Your task to perform on an android device: Open Google Maps Image 0: 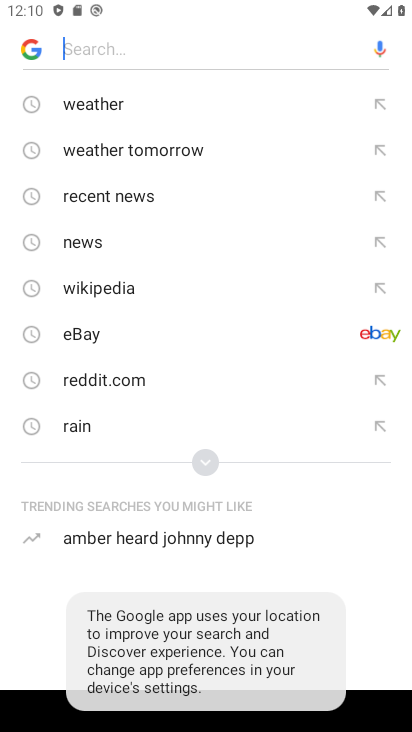
Step 0: press home button
Your task to perform on an android device: Open Google Maps Image 1: 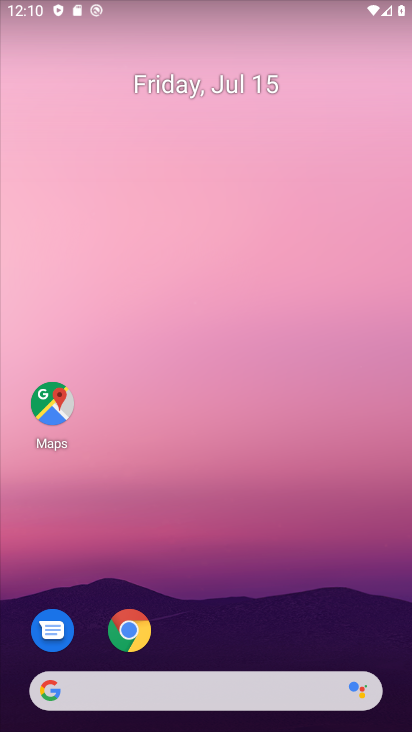
Step 1: click (61, 419)
Your task to perform on an android device: Open Google Maps Image 2: 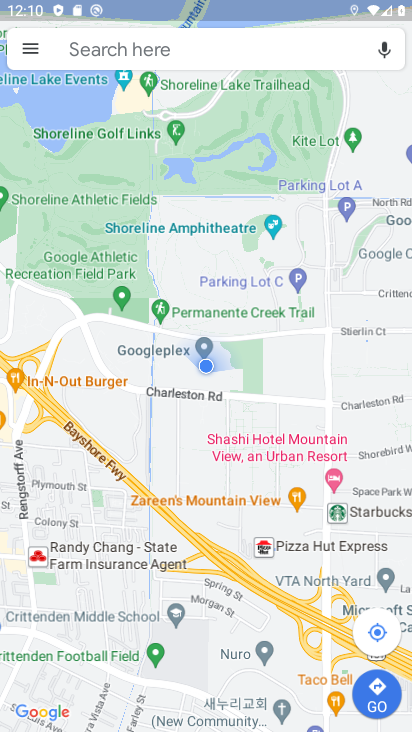
Step 2: task complete